Your task to perform on an android device: Go to wifi settings Image 0: 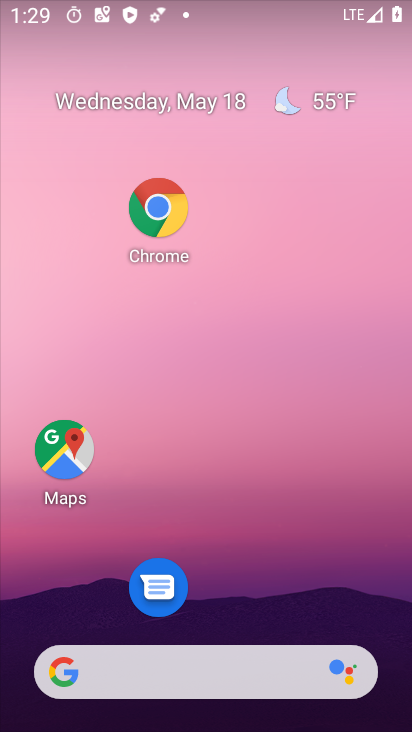
Step 0: drag from (250, 371) to (197, 66)
Your task to perform on an android device: Go to wifi settings Image 1: 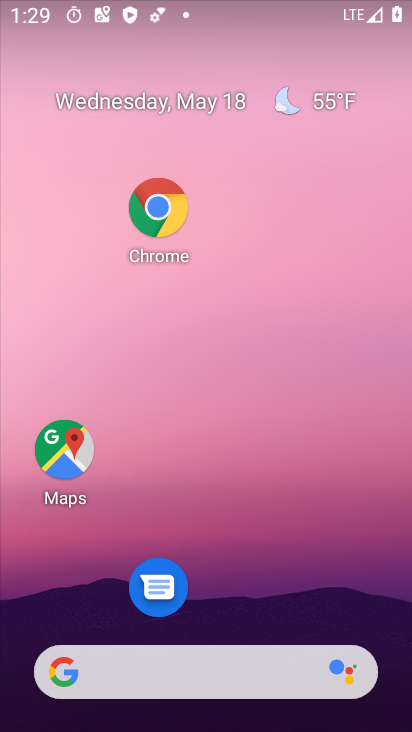
Step 1: drag from (238, 598) to (209, 6)
Your task to perform on an android device: Go to wifi settings Image 2: 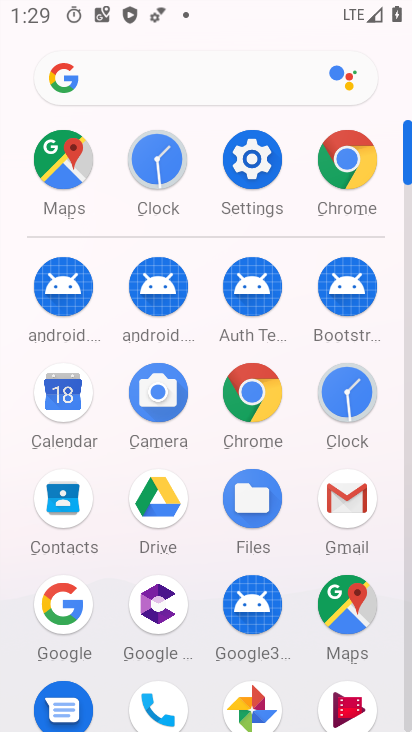
Step 2: click (250, 195)
Your task to perform on an android device: Go to wifi settings Image 3: 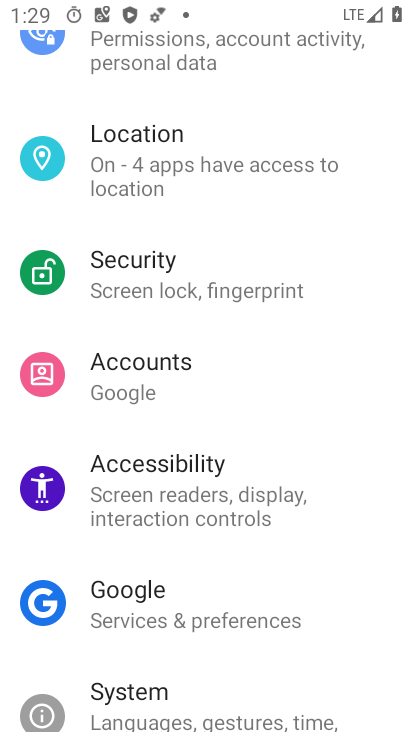
Step 3: drag from (243, 122) to (211, 386)
Your task to perform on an android device: Go to wifi settings Image 4: 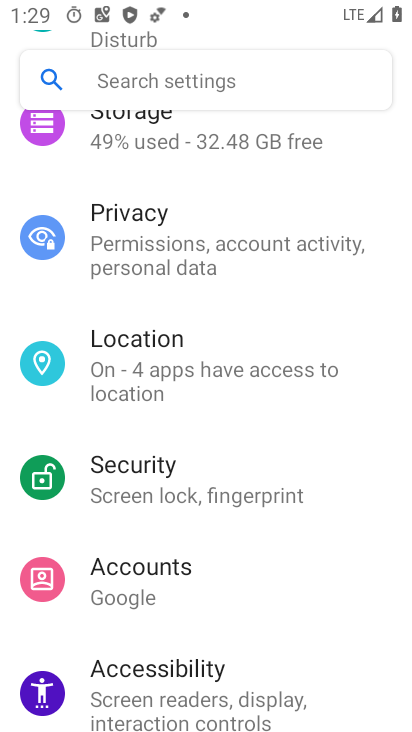
Step 4: drag from (205, 192) to (205, 473)
Your task to perform on an android device: Go to wifi settings Image 5: 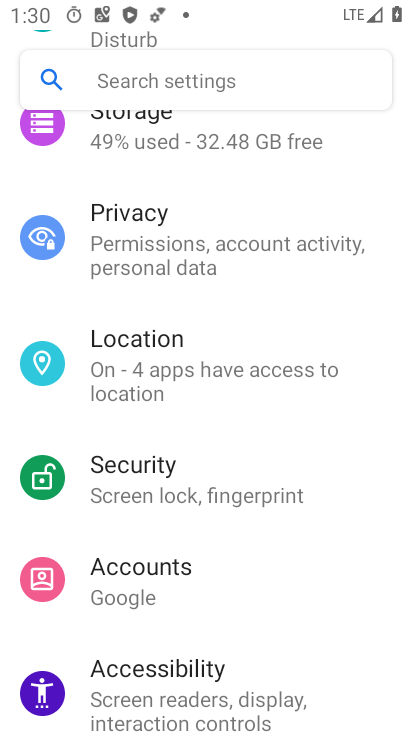
Step 5: drag from (188, 193) to (188, 503)
Your task to perform on an android device: Go to wifi settings Image 6: 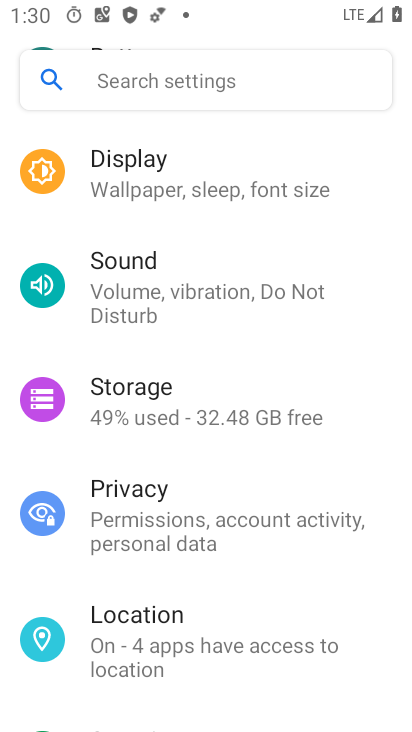
Step 6: drag from (163, 212) to (191, 484)
Your task to perform on an android device: Go to wifi settings Image 7: 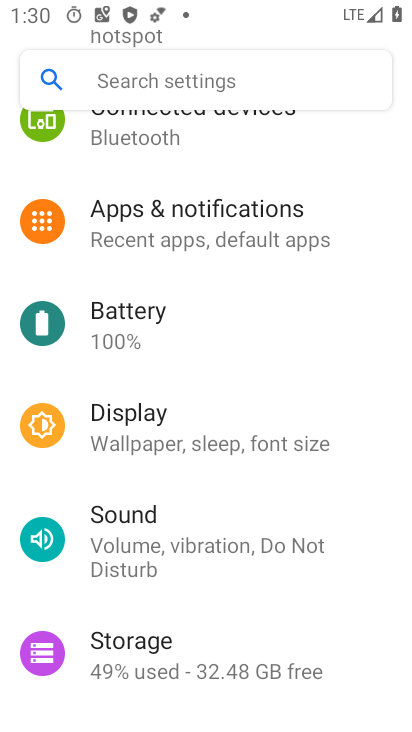
Step 7: drag from (163, 274) to (156, 542)
Your task to perform on an android device: Go to wifi settings Image 8: 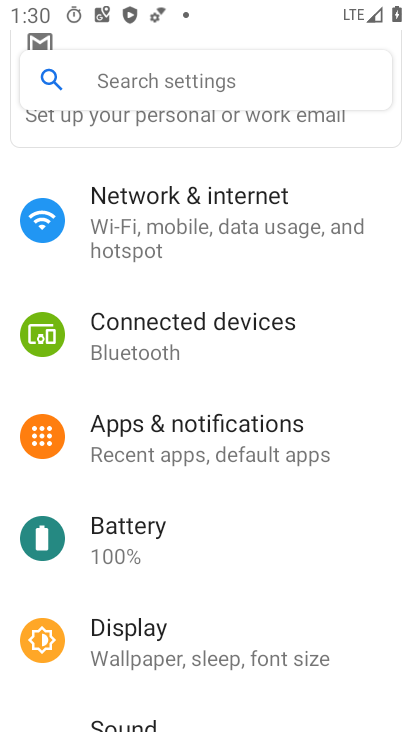
Step 8: click (140, 204)
Your task to perform on an android device: Go to wifi settings Image 9: 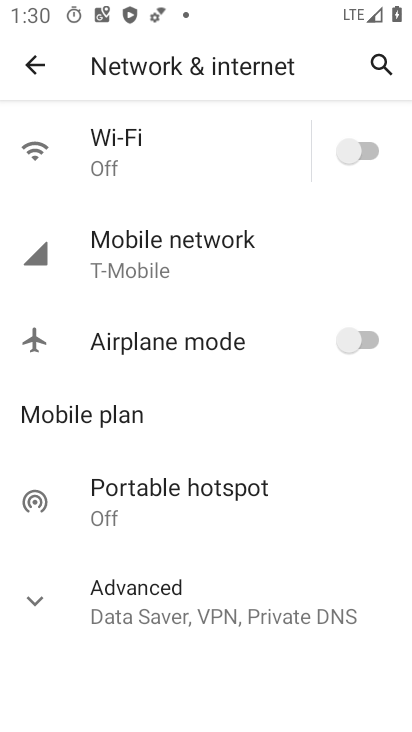
Step 9: click (123, 150)
Your task to perform on an android device: Go to wifi settings Image 10: 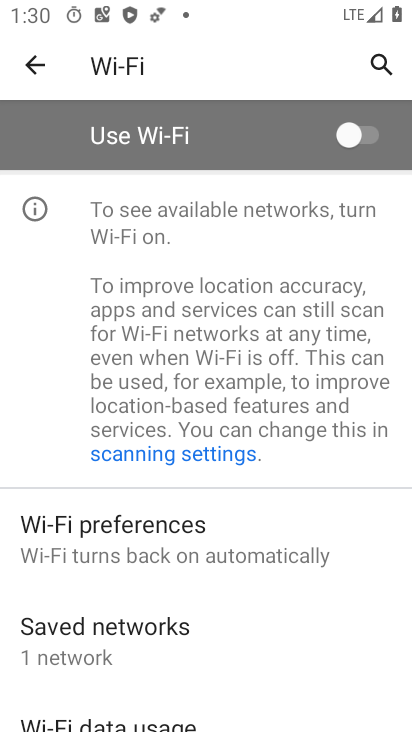
Step 10: task complete